Your task to perform on an android device: Turn off the flashlight Image 0: 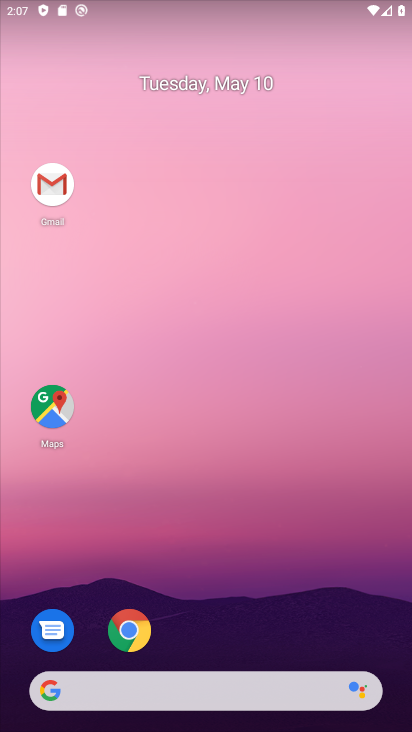
Step 0: drag from (257, 1) to (313, 405)
Your task to perform on an android device: Turn off the flashlight Image 1: 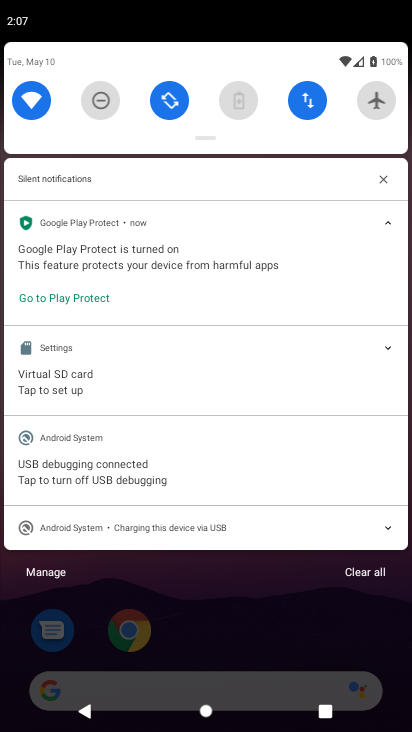
Step 1: task complete